Your task to perform on an android device: empty trash in google photos Image 0: 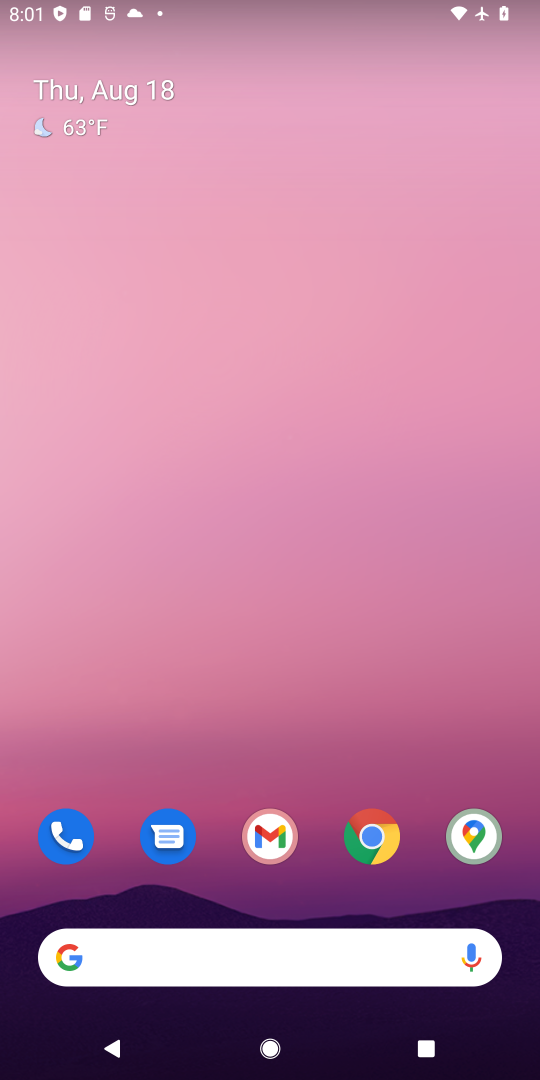
Step 0: drag from (336, 611) to (421, 121)
Your task to perform on an android device: empty trash in google photos Image 1: 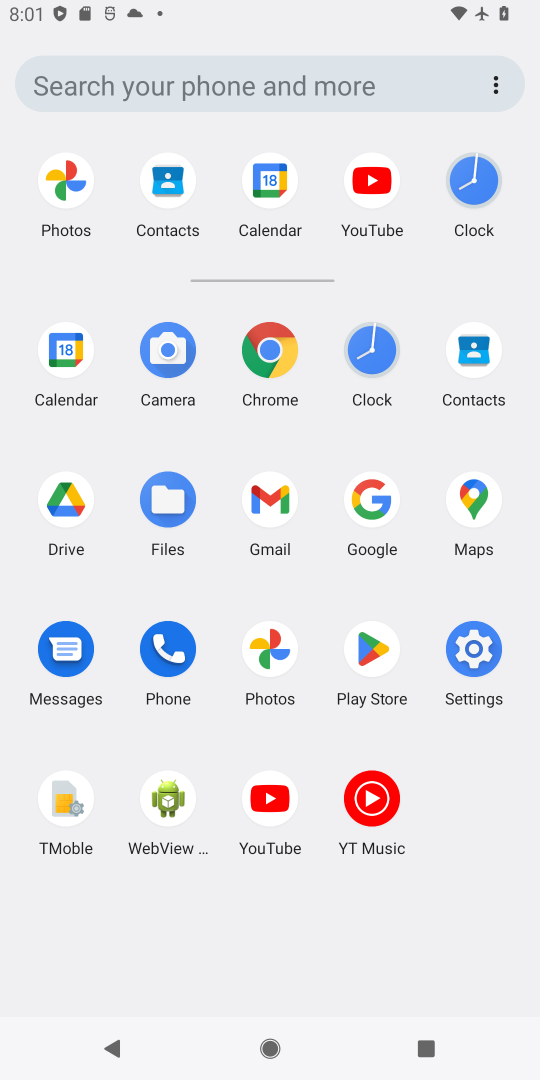
Step 1: click (272, 643)
Your task to perform on an android device: empty trash in google photos Image 2: 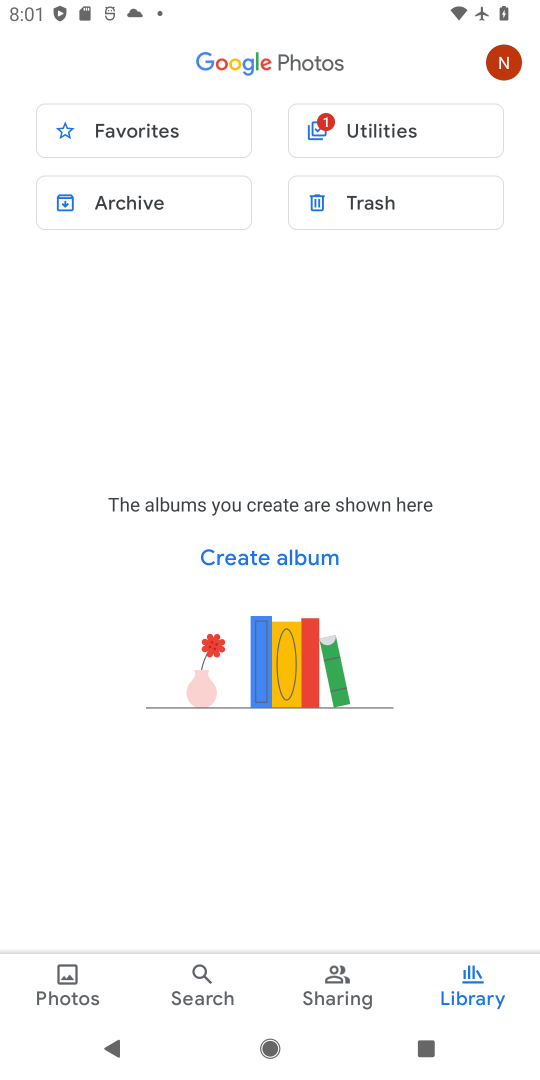
Step 2: click (410, 198)
Your task to perform on an android device: empty trash in google photos Image 3: 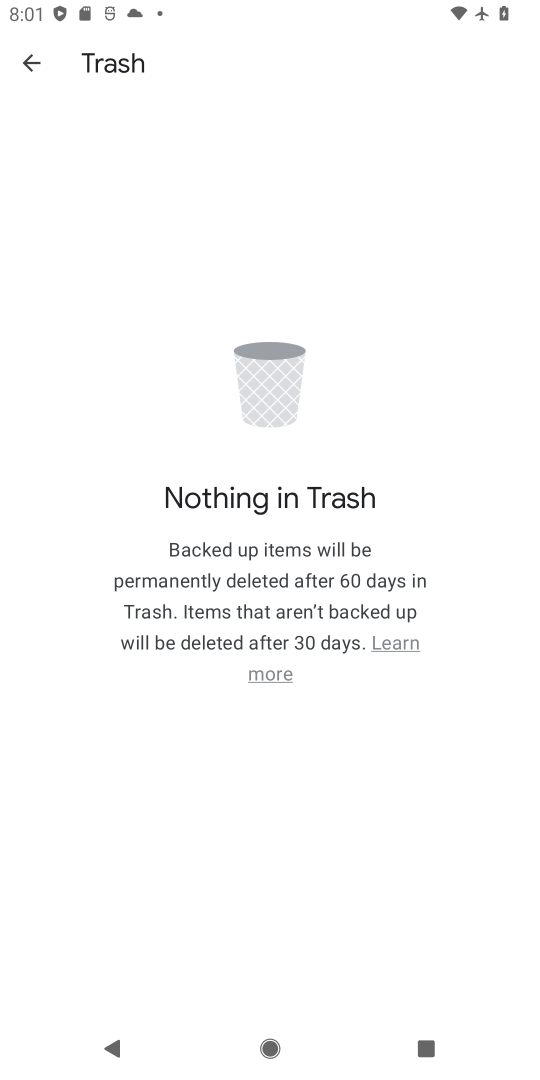
Step 3: task complete